Your task to perform on an android device: turn off location Image 0: 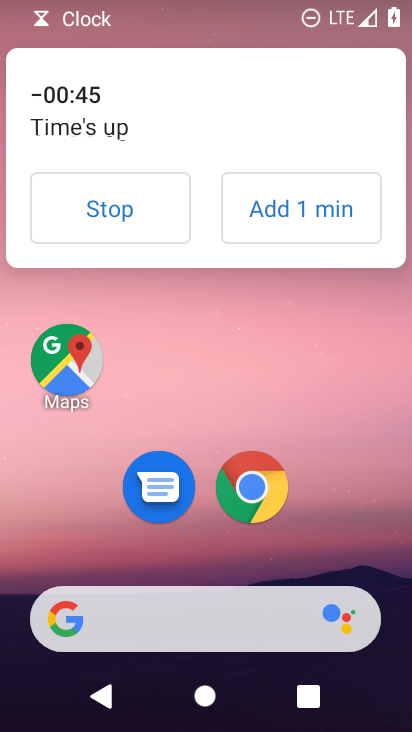
Step 0: press home button
Your task to perform on an android device: turn off location Image 1: 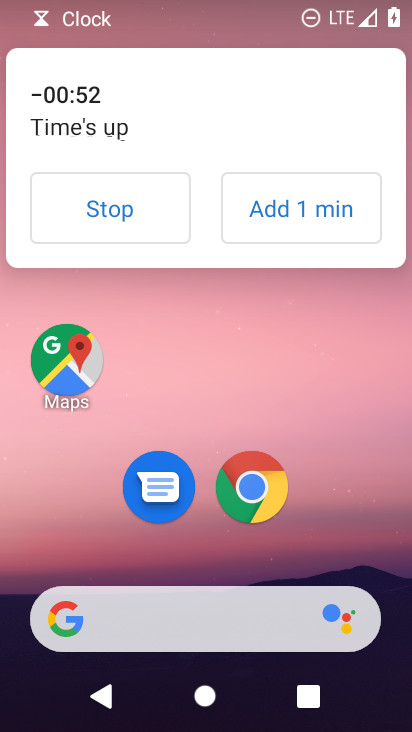
Step 1: click (176, 230)
Your task to perform on an android device: turn off location Image 2: 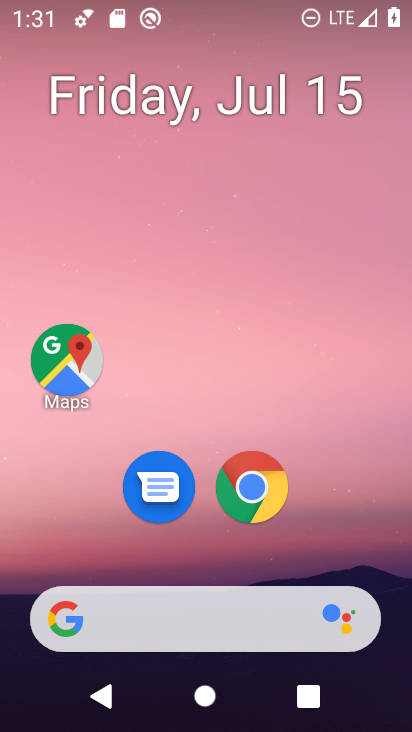
Step 2: drag from (211, 590) to (401, 48)
Your task to perform on an android device: turn off location Image 3: 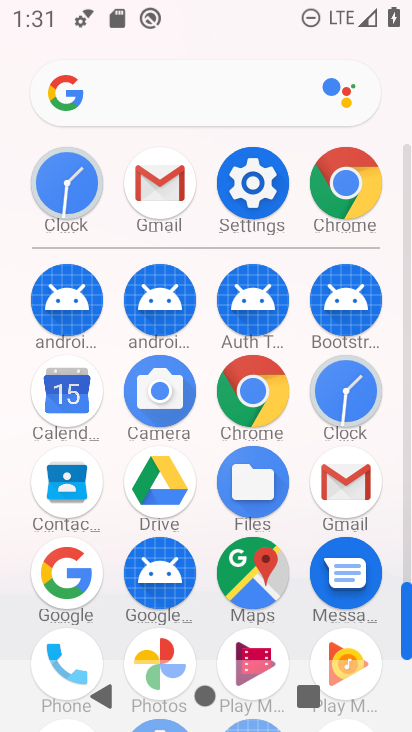
Step 3: click (246, 180)
Your task to perform on an android device: turn off location Image 4: 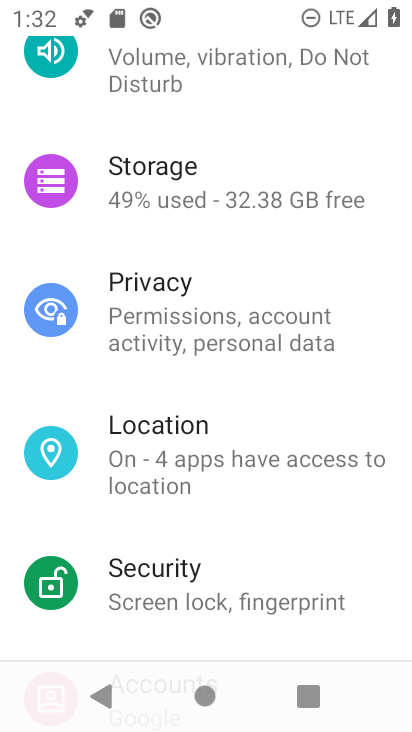
Step 4: click (212, 451)
Your task to perform on an android device: turn off location Image 5: 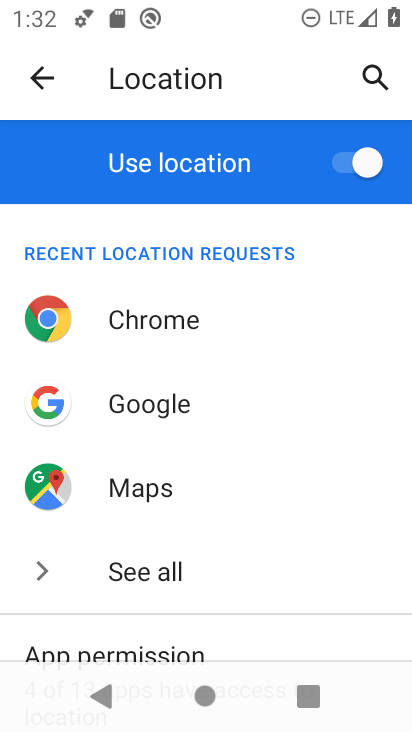
Step 5: click (353, 161)
Your task to perform on an android device: turn off location Image 6: 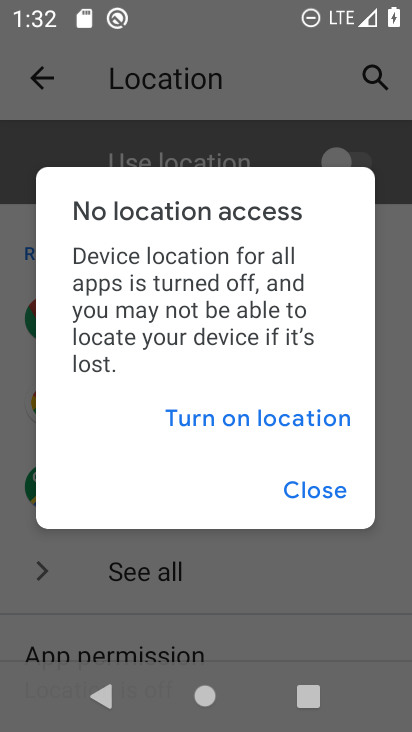
Step 6: task complete